Your task to perform on an android device: turn notification dots off Image 0: 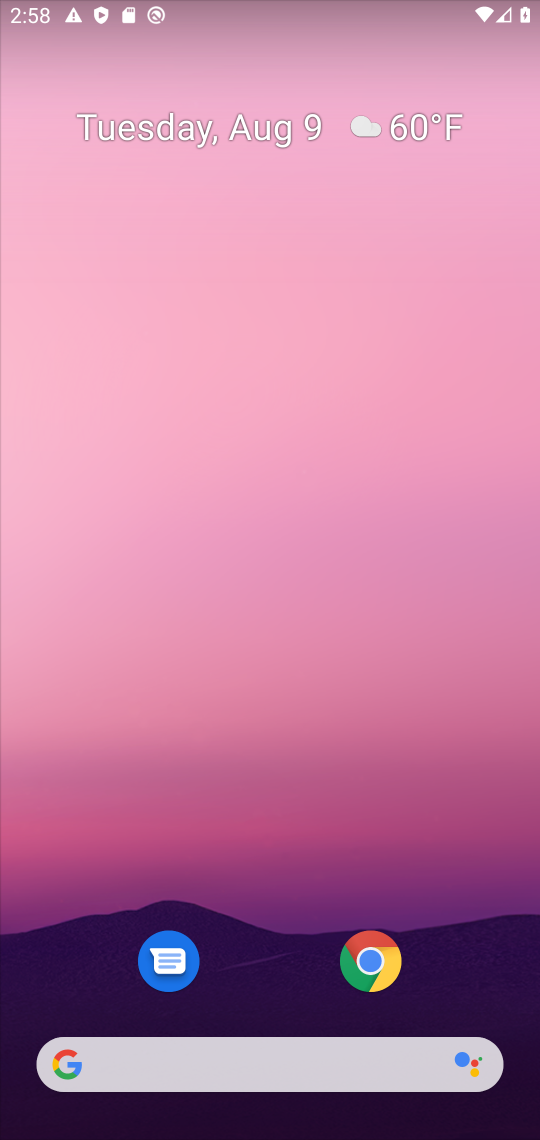
Step 0: click (278, 465)
Your task to perform on an android device: turn notification dots off Image 1: 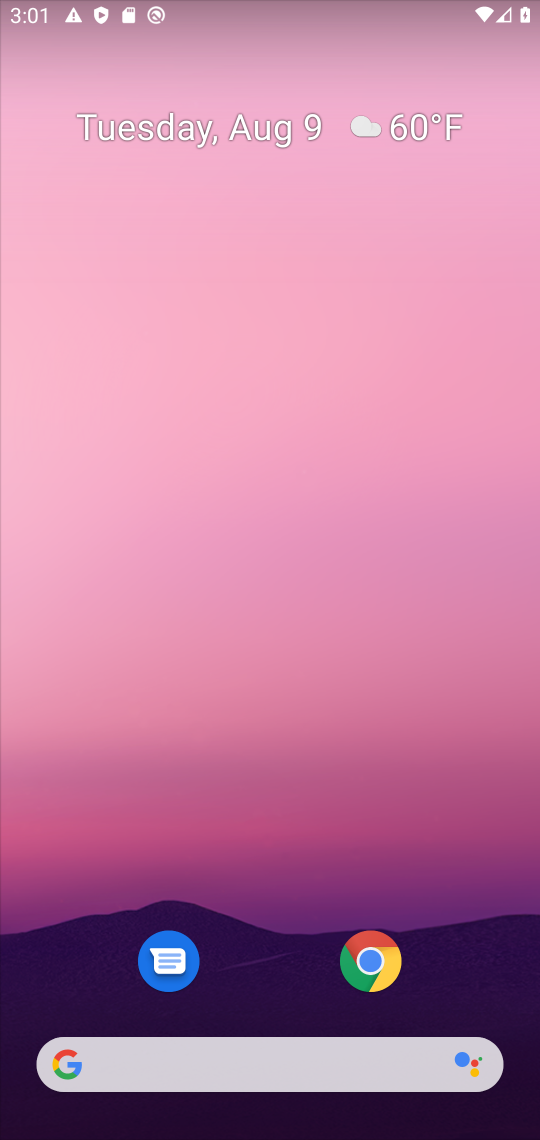
Step 1: drag from (301, 1033) to (249, 444)
Your task to perform on an android device: turn notification dots off Image 2: 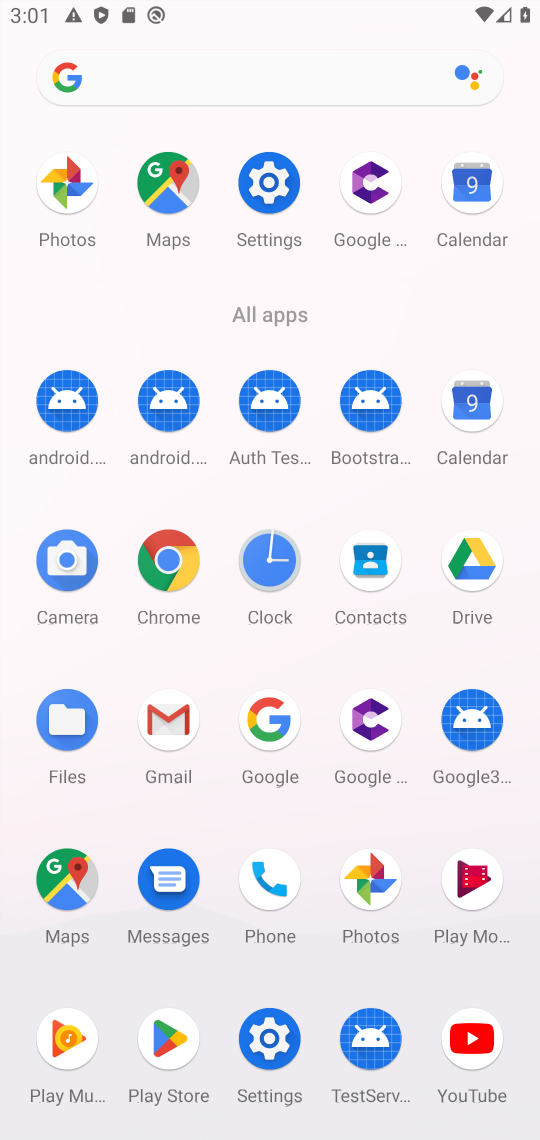
Step 2: click (278, 194)
Your task to perform on an android device: turn notification dots off Image 3: 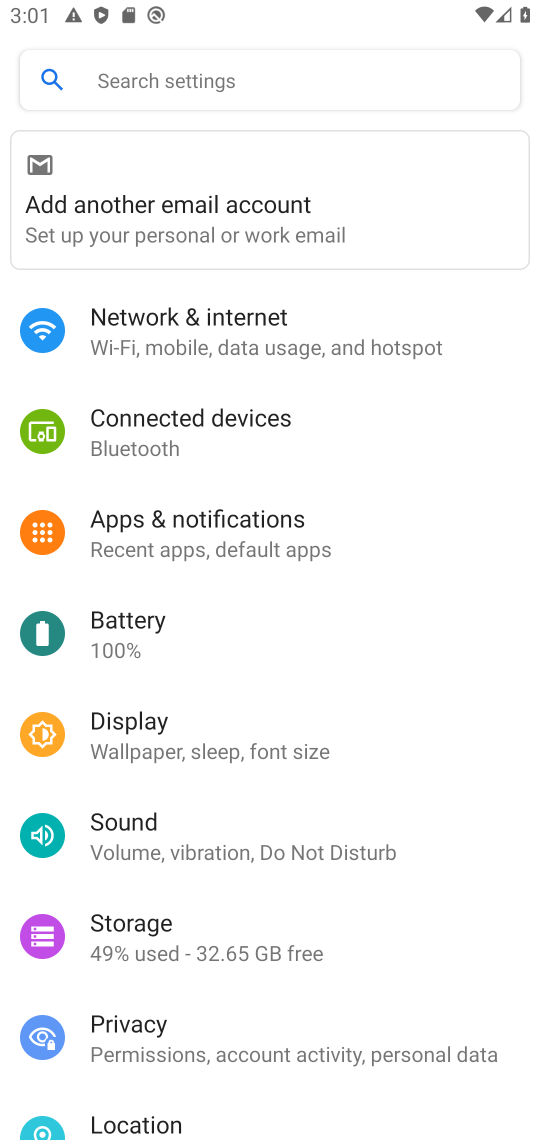
Step 3: click (225, 519)
Your task to perform on an android device: turn notification dots off Image 4: 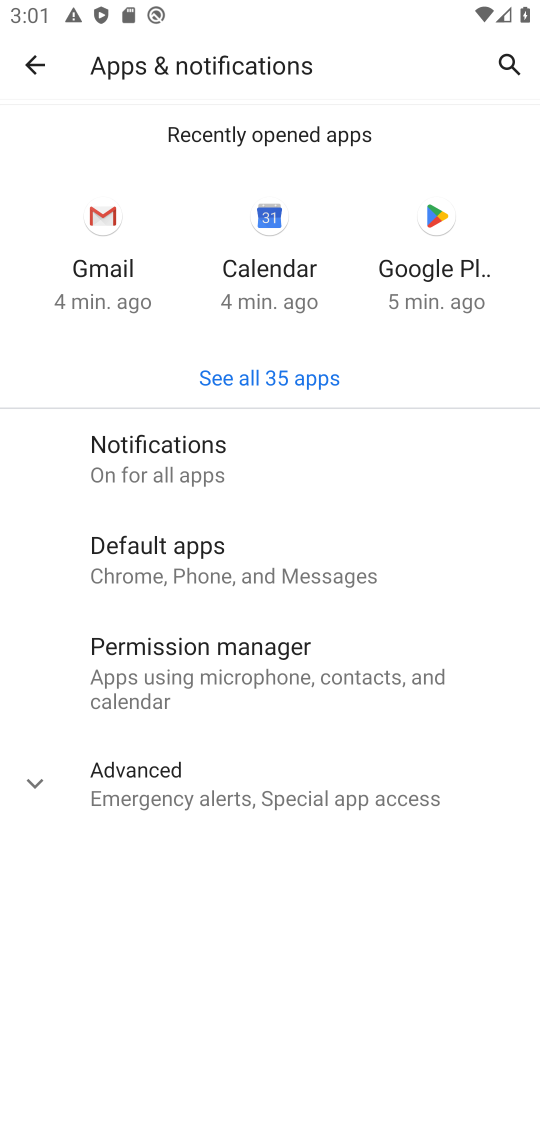
Step 4: click (166, 442)
Your task to perform on an android device: turn notification dots off Image 5: 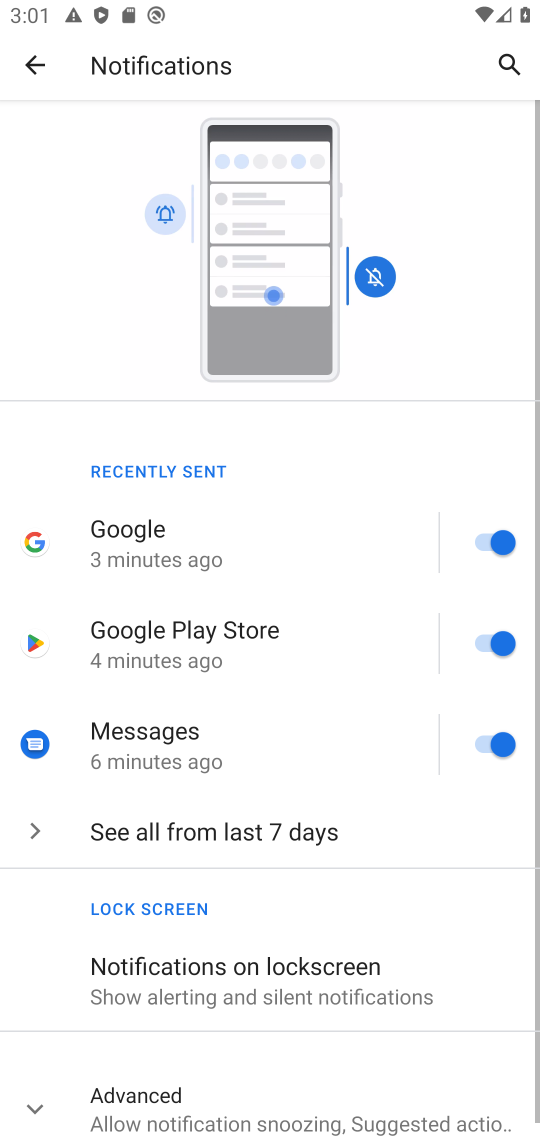
Step 5: drag from (228, 951) to (234, 341)
Your task to perform on an android device: turn notification dots off Image 6: 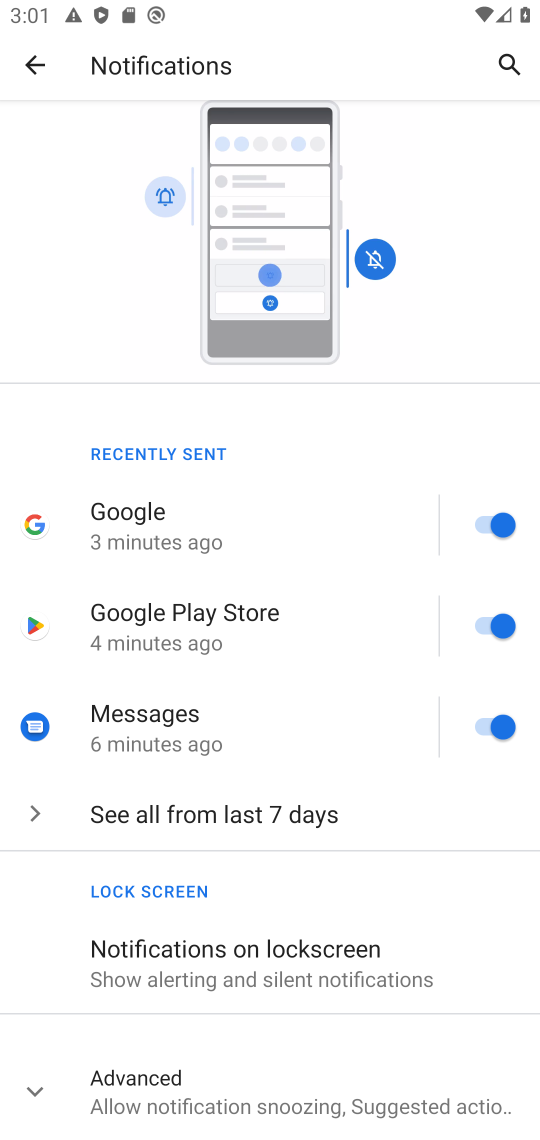
Step 6: click (124, 1112)
Your task to perform on an android device: turn notification dots off Image 7: 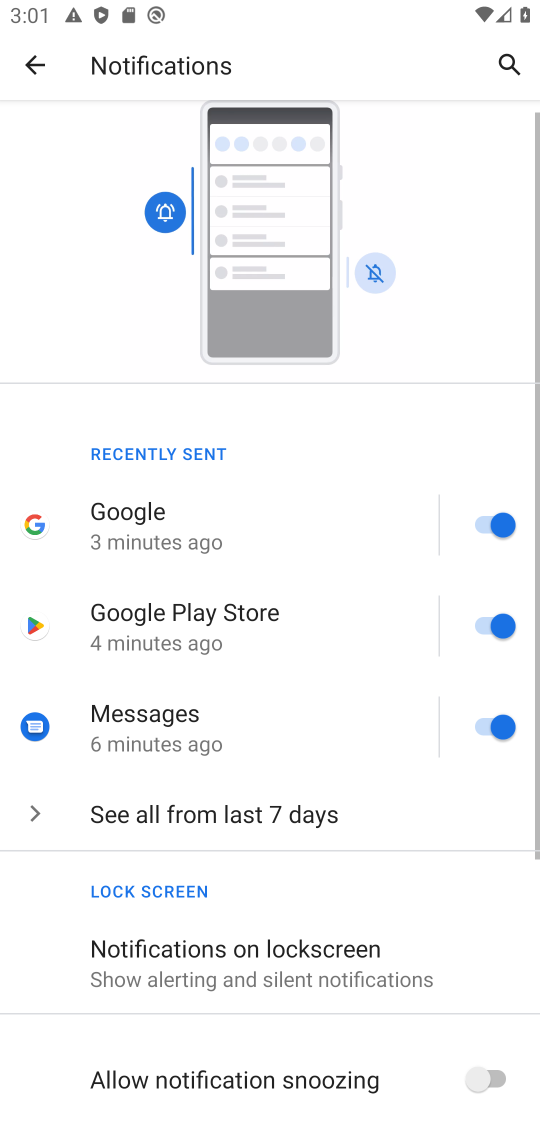
Step 7: task complete